Your task to perform on an android device: set the stopwatch Image 0: 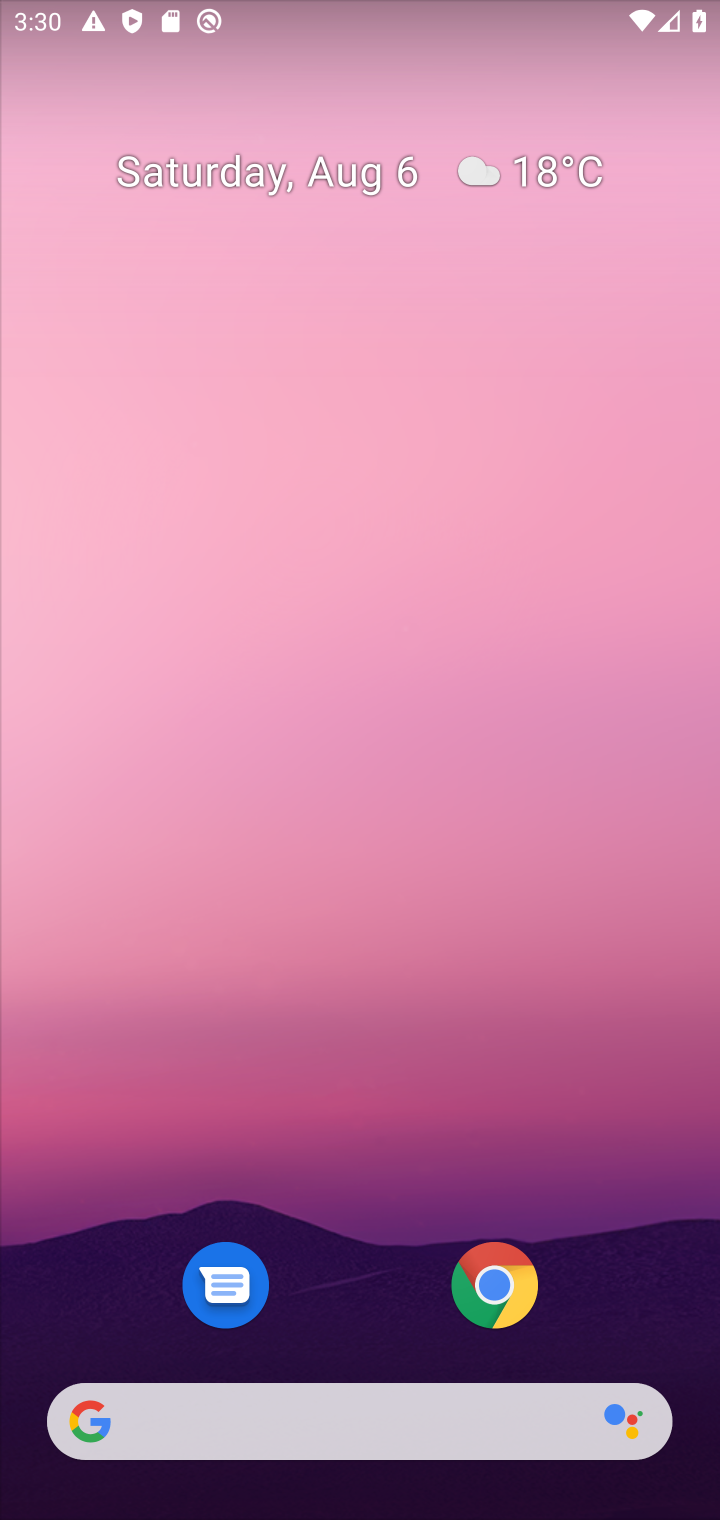
Step 0: press home button
Your task to perform on an android device: set the stopwatch Image 1: 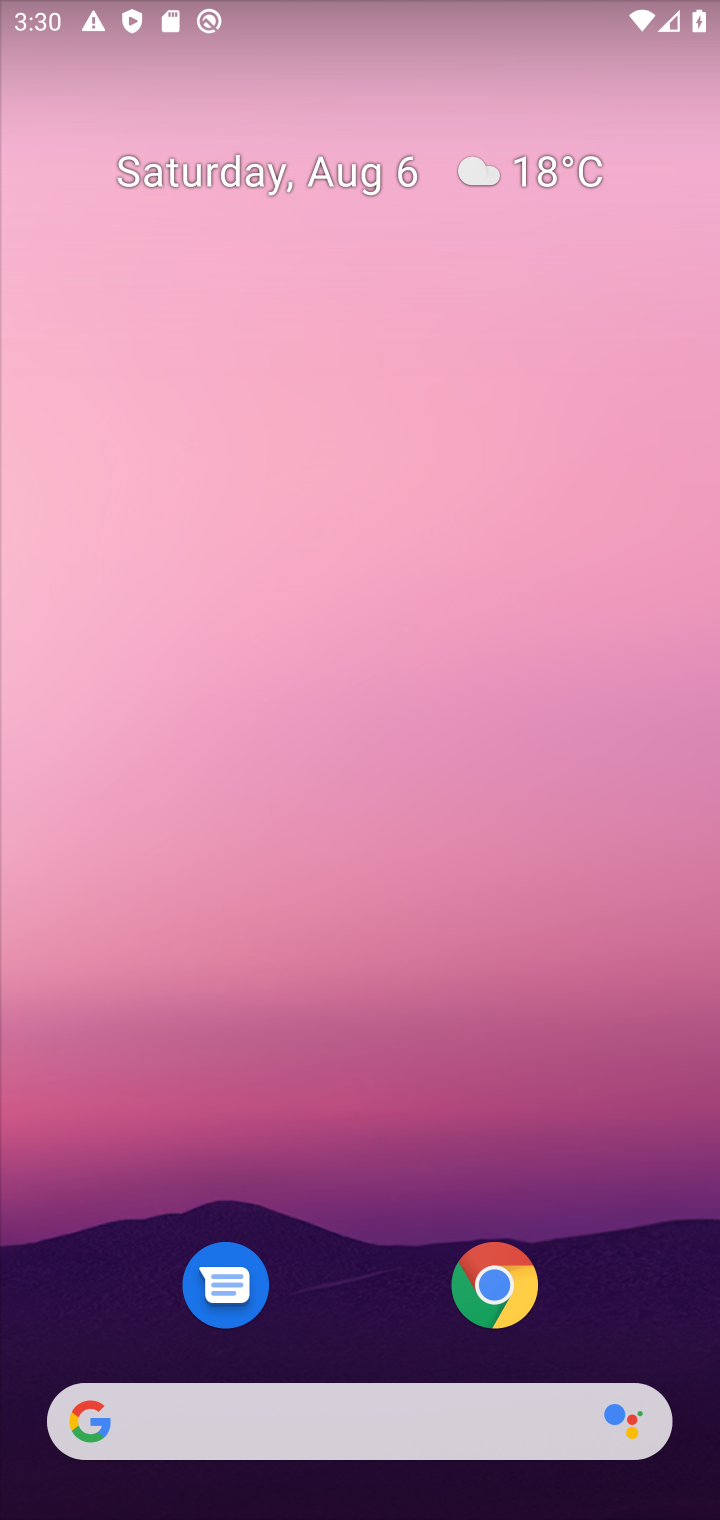
Step 1: drag from (369, 1344) to (399, 169)
Your task to perform on an android device: set the stopwatch Image 2: 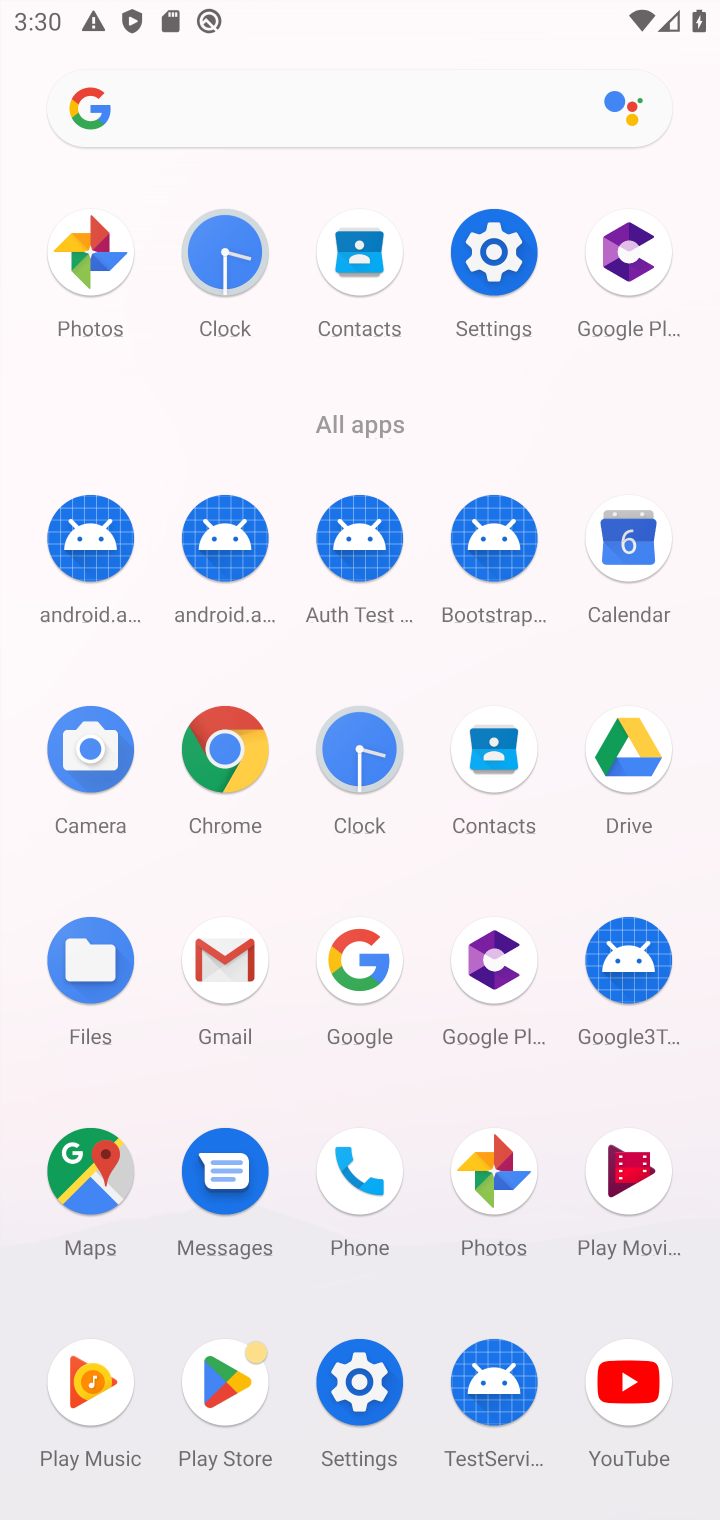
Step 2: click (359, 734)
Your task to perform on an android device: set the stopwatch Image 3: 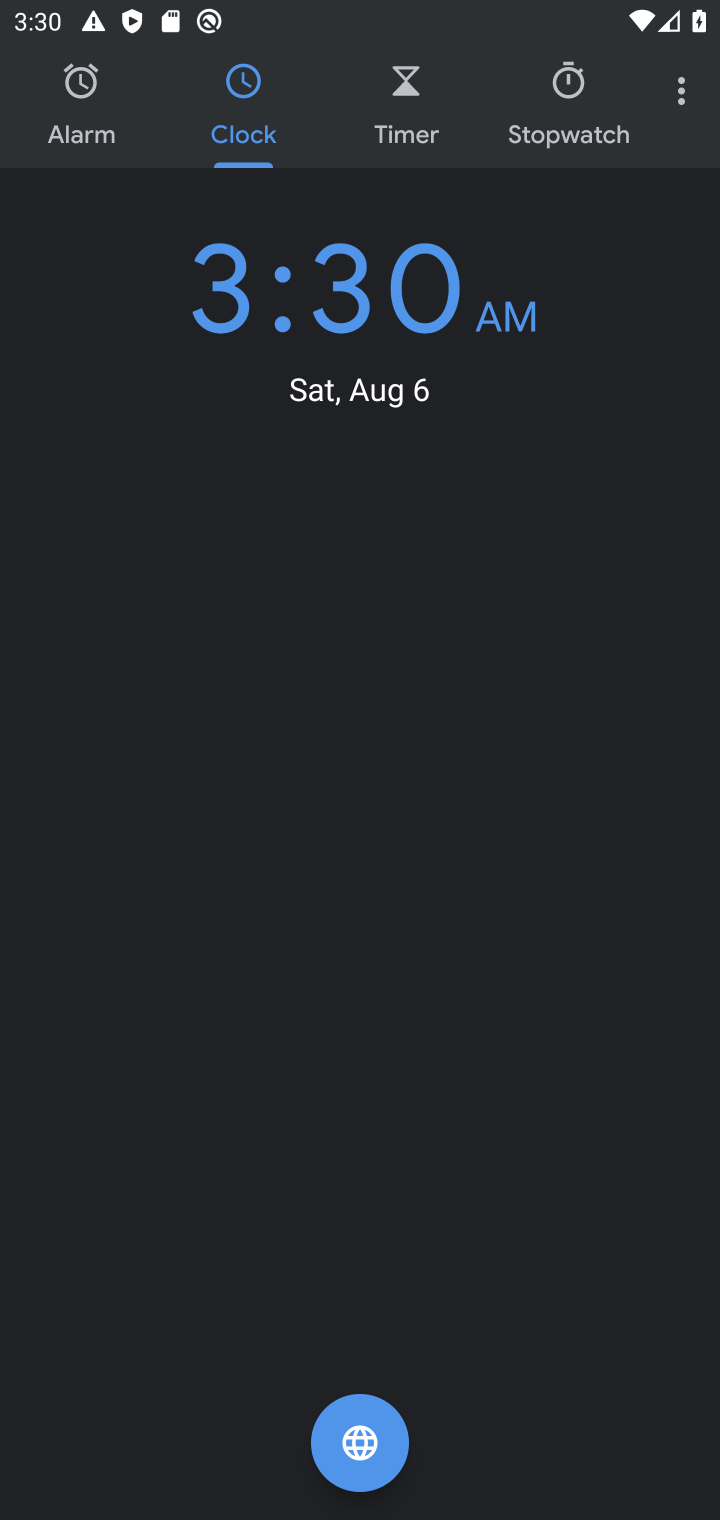
Step 3: click (562, 78)
Your task to perform on an android device: set the stopwatch Image 4: 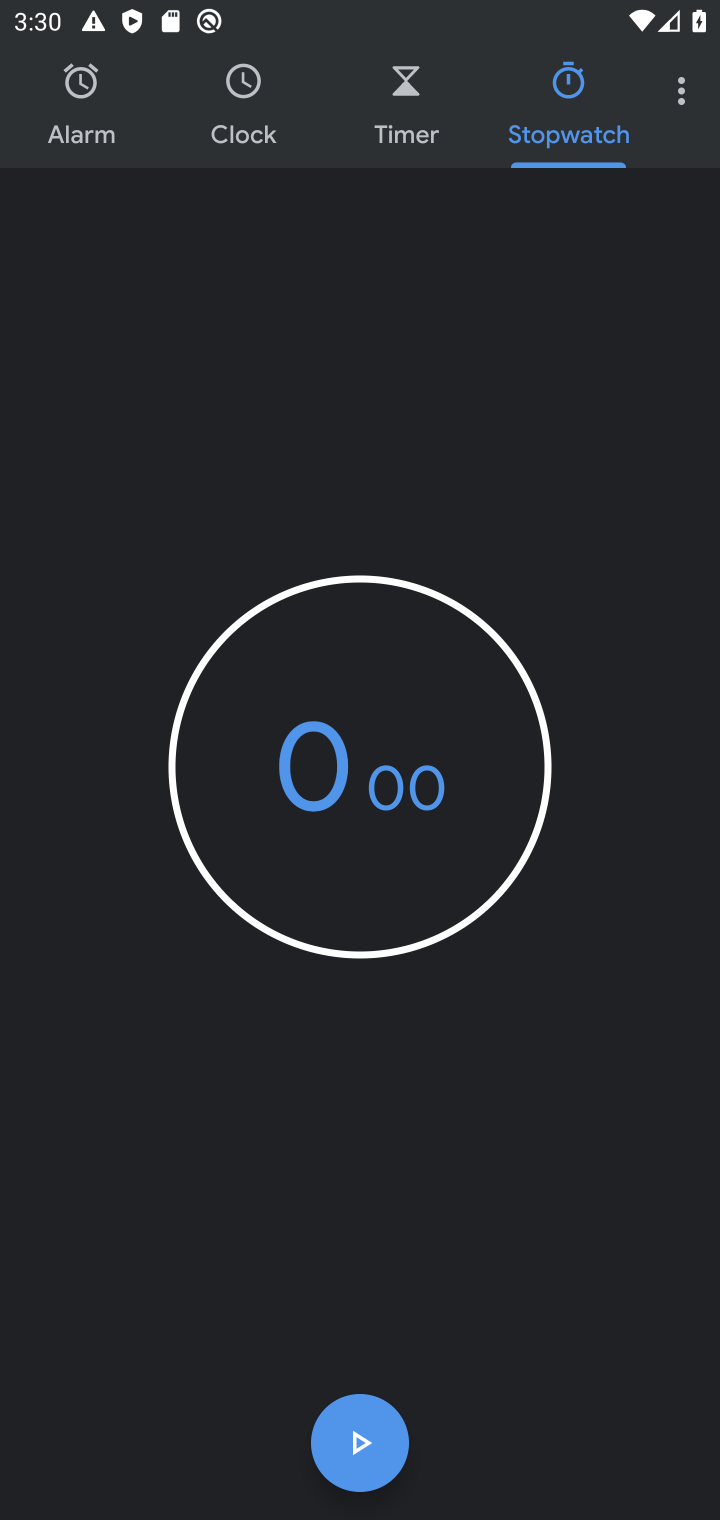
Step 4: click (356, 1440)
Your task to perform on an android device: set the stopwatch Image 5: 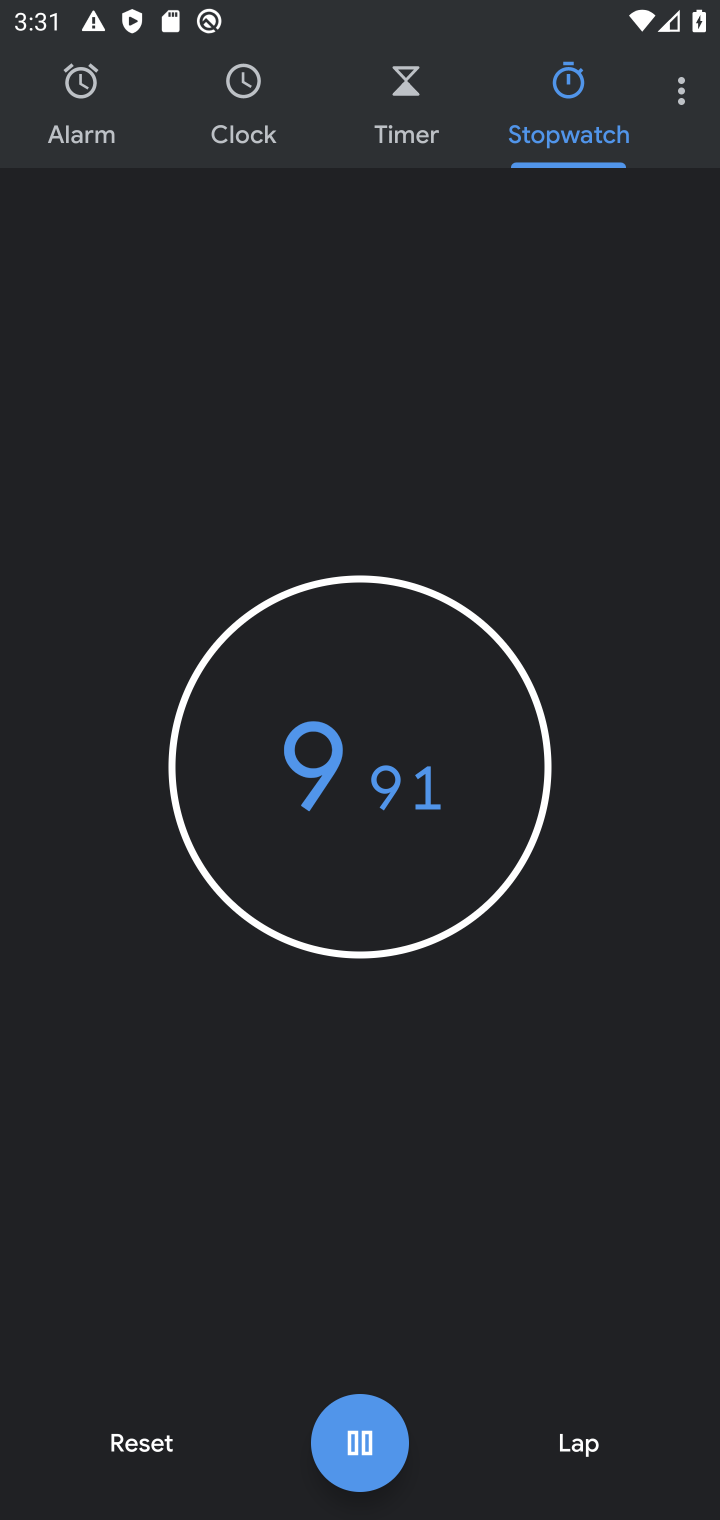
Step 5: task complete